Your task to perform on an android device: remove spam from my inbox in the gmail app Image 0: 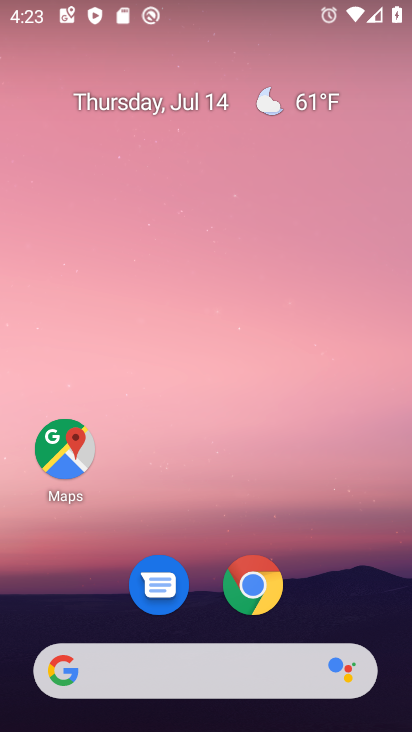
Step 0: drag from (304, 594) to (298, 94)
Your task to perform on an android device: remove spam from my inbox in the gmail app Image 1: 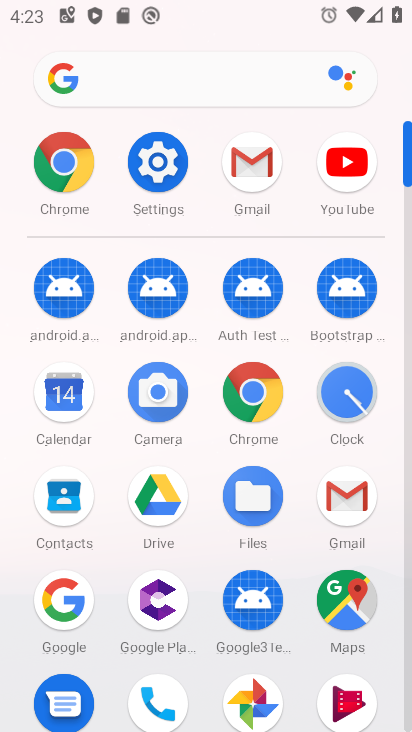
Step 1: click (262, 161)
Your task to perform on an android device: remove spam from my inbox in the gmail app Image 2: 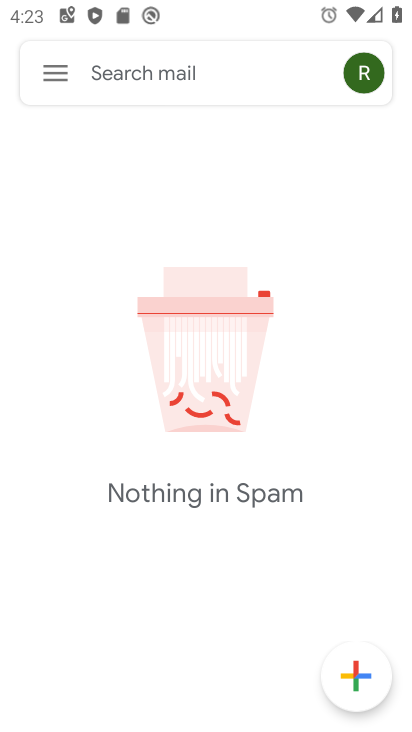
Step 2: click (61, 79)
Your task to perform on an android device: remove spam from my inbox in the gmail app Image 3: 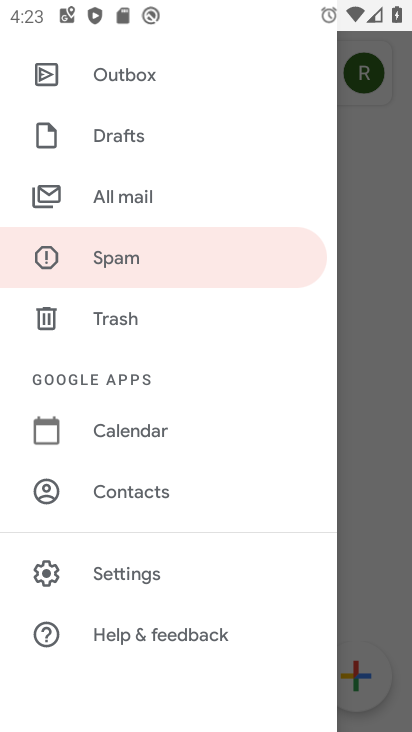
Step 3: click (178, 253)
Your task to perform on an android device: remove spam from my inbox in the gmail app Image 4: 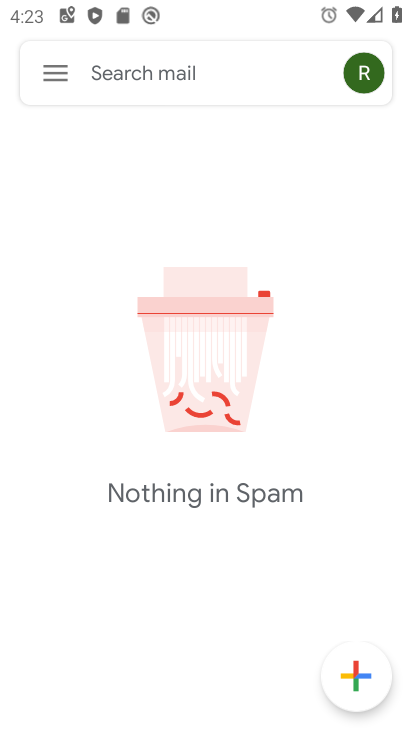
Step 4: task complete